Your task to perform on an android device: open a bookmark in the chrome app Image 0: 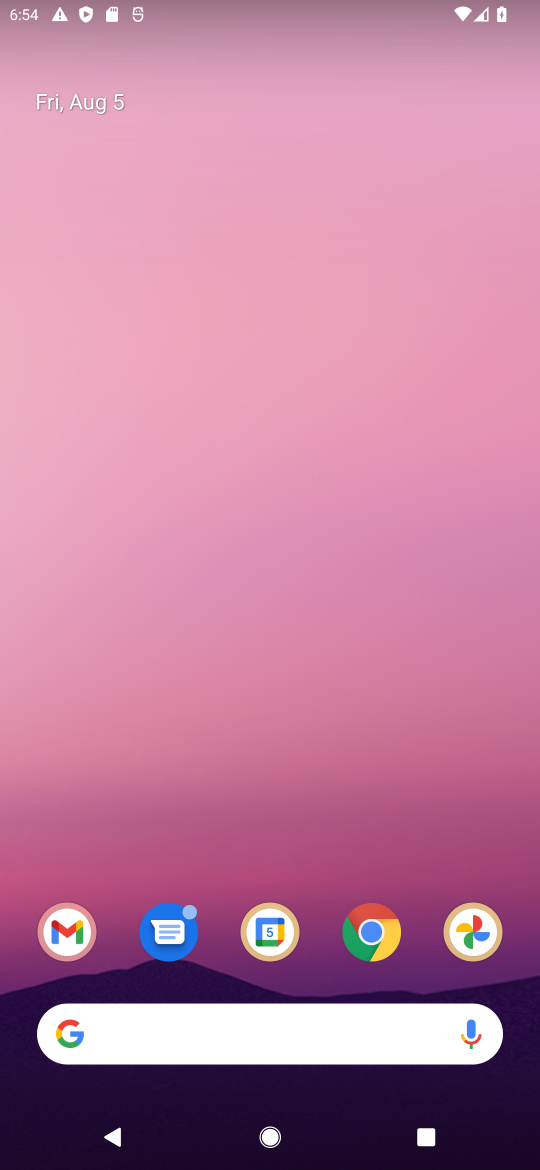
Step 0: click (369, 935)
Your task to perform on an android device: open a bookmark in the chrome app Image 1: 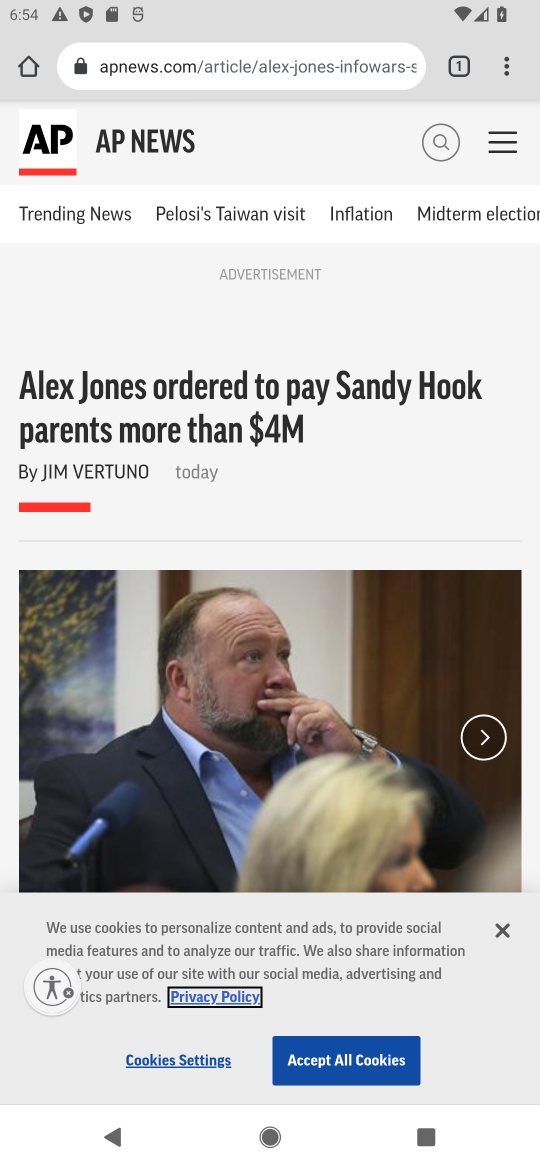
Step 1: click (517, 75)
Your task to perform on an android device: open a bookmark in the chrome app Image 2: 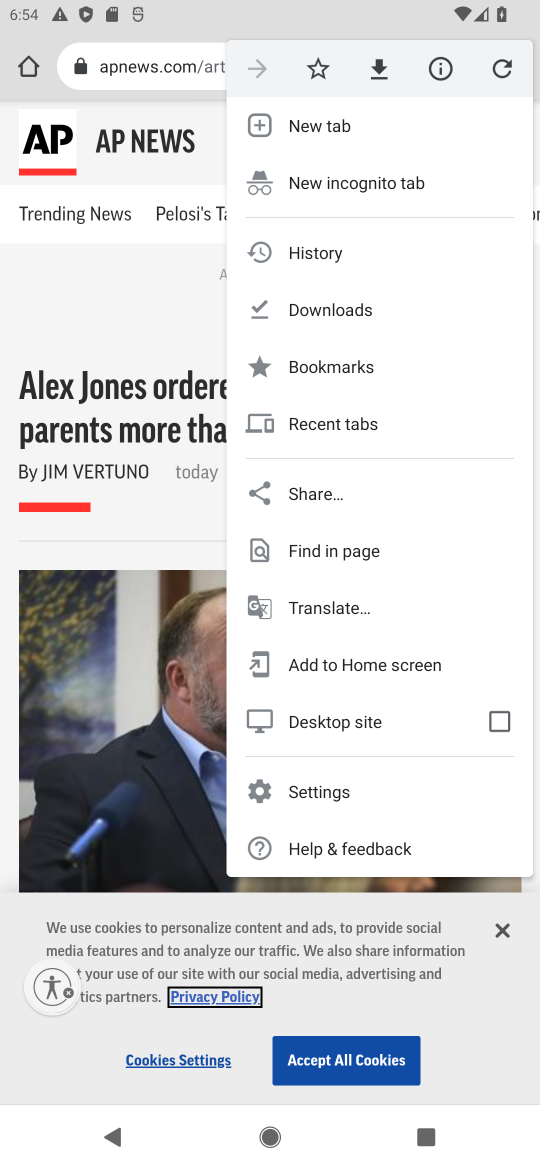
Step 2: click (346, 365)
Your task to perform on an android device: open a bookmark in the chrome app Image 3: 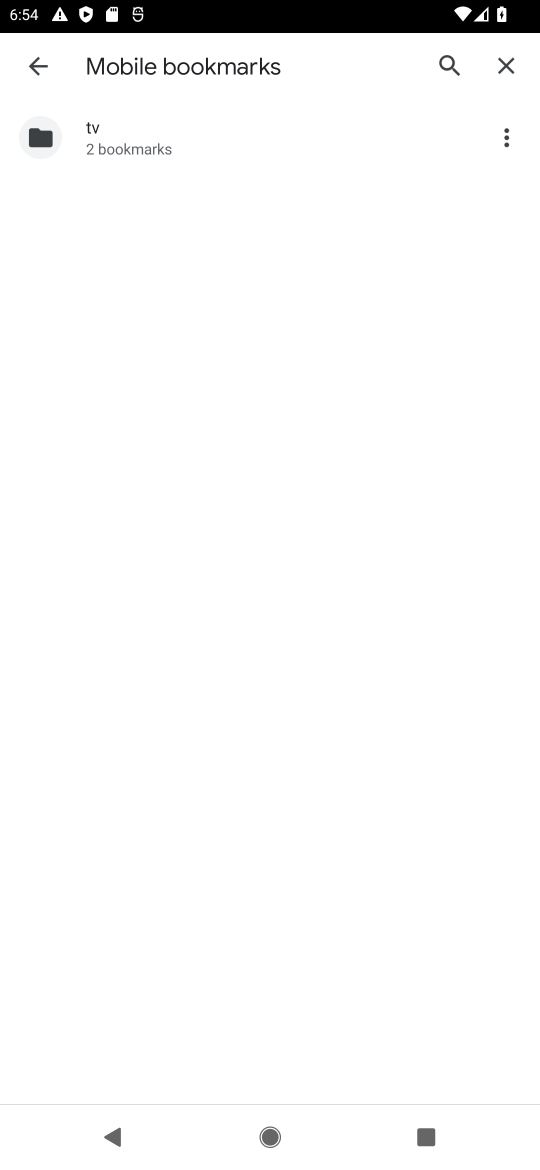
Step 3: task complete